Your task to perform on an android device: What's a good restaurant in Atlanta? Image 0: 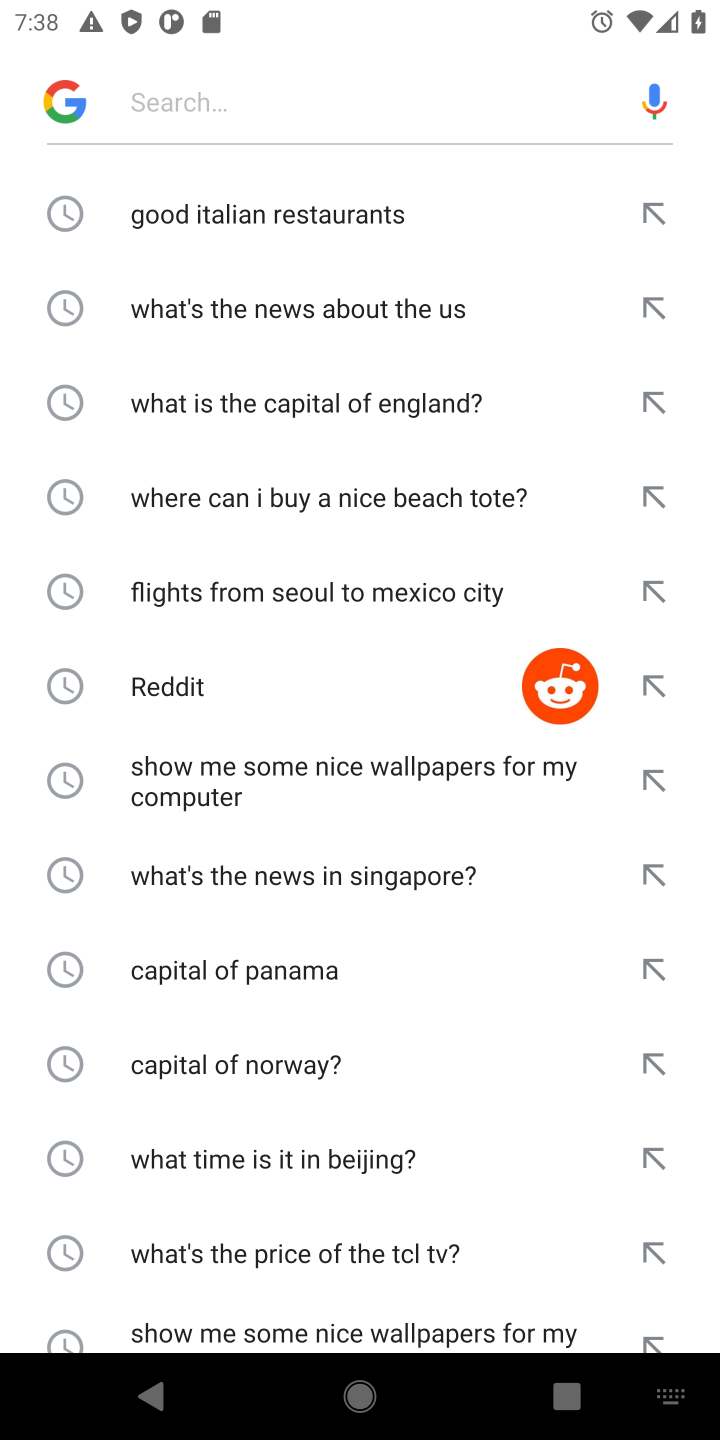
Step 0: press home button
Your task to perform on an android device: What's a good restaurant in Atlanta? Image 1: 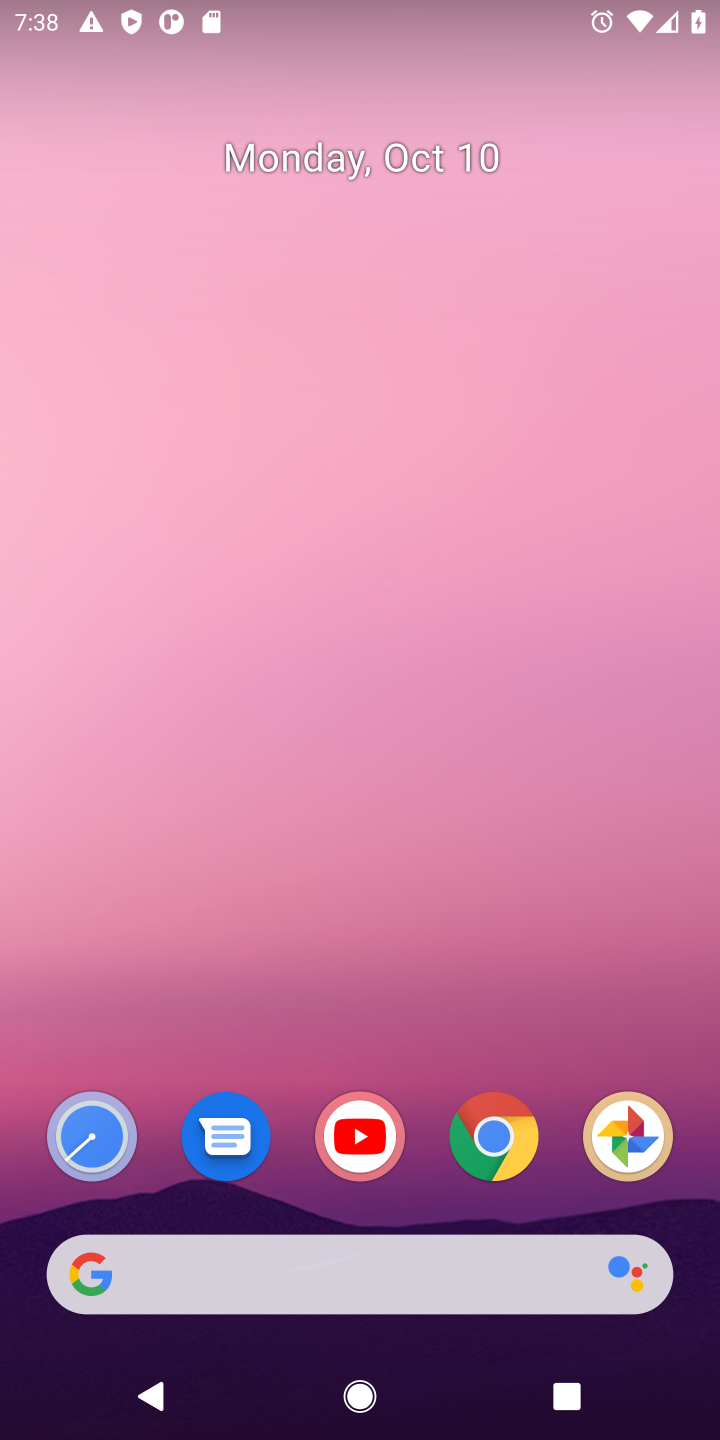
Step 1: drag from (417, 1200) to (426, 119)
Your task to perform on an android device: What's a good restaurant in Atlanta? Image 2: 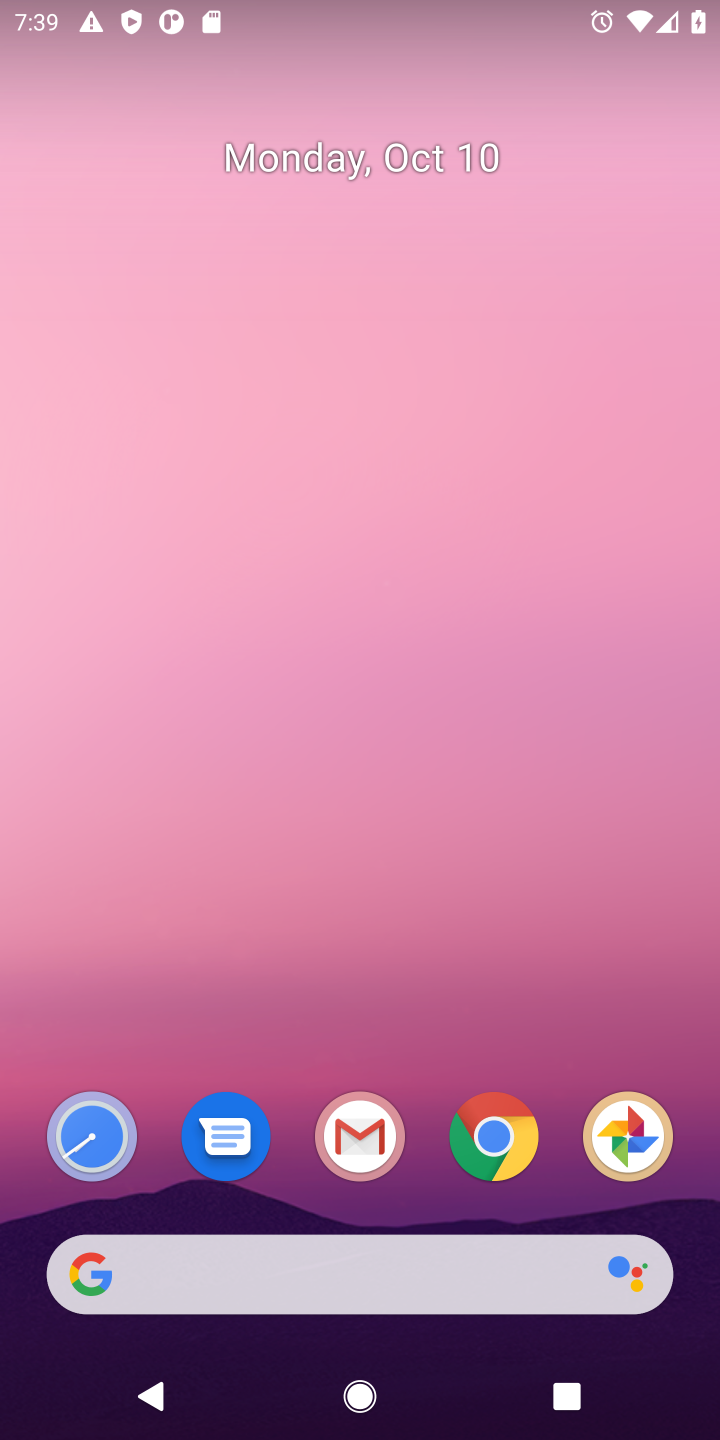
Step 2: drag from (407, 1221) to (360, 59)
Your task to perform on an android device: What's a good restaurant in Atlanta? Image 3: 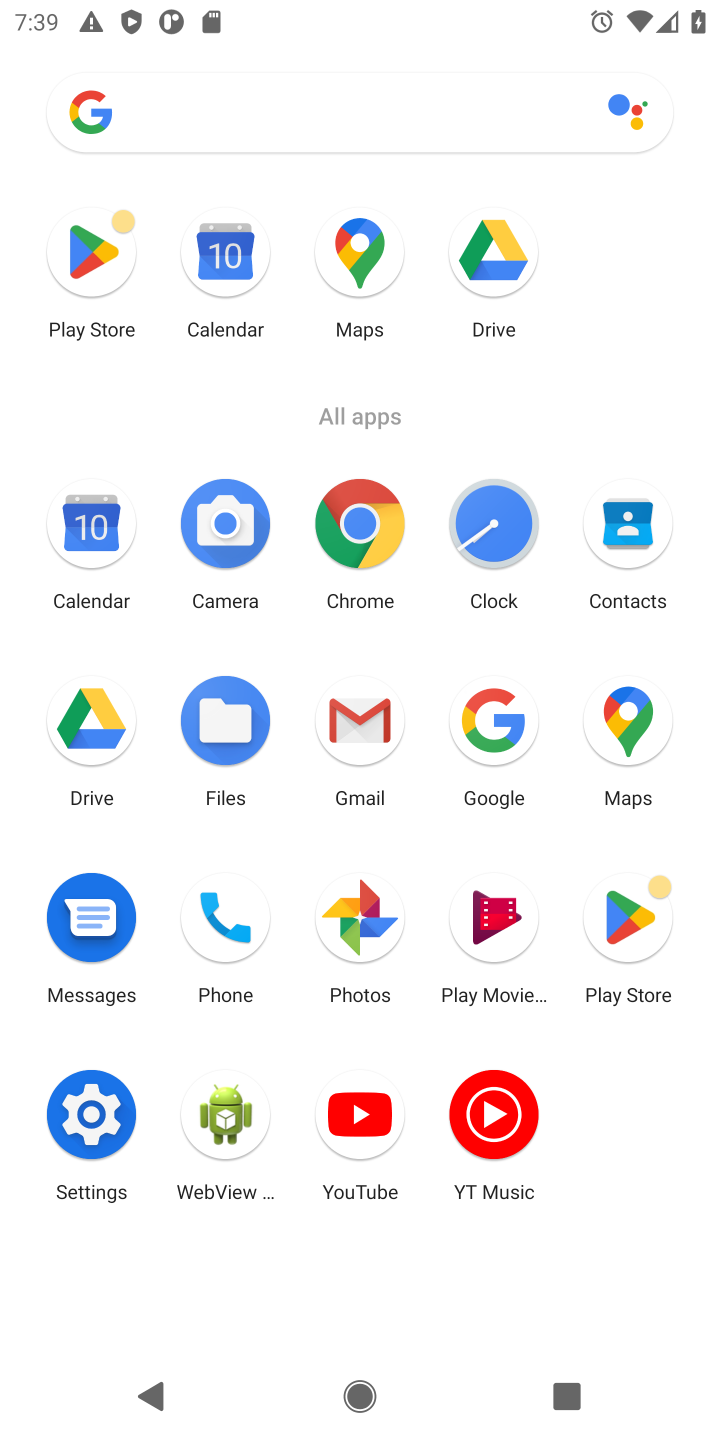
Step 3: click (360, 533)
Your task to perform on an android device: What's a good restaurant in Atlanta? Image 4: 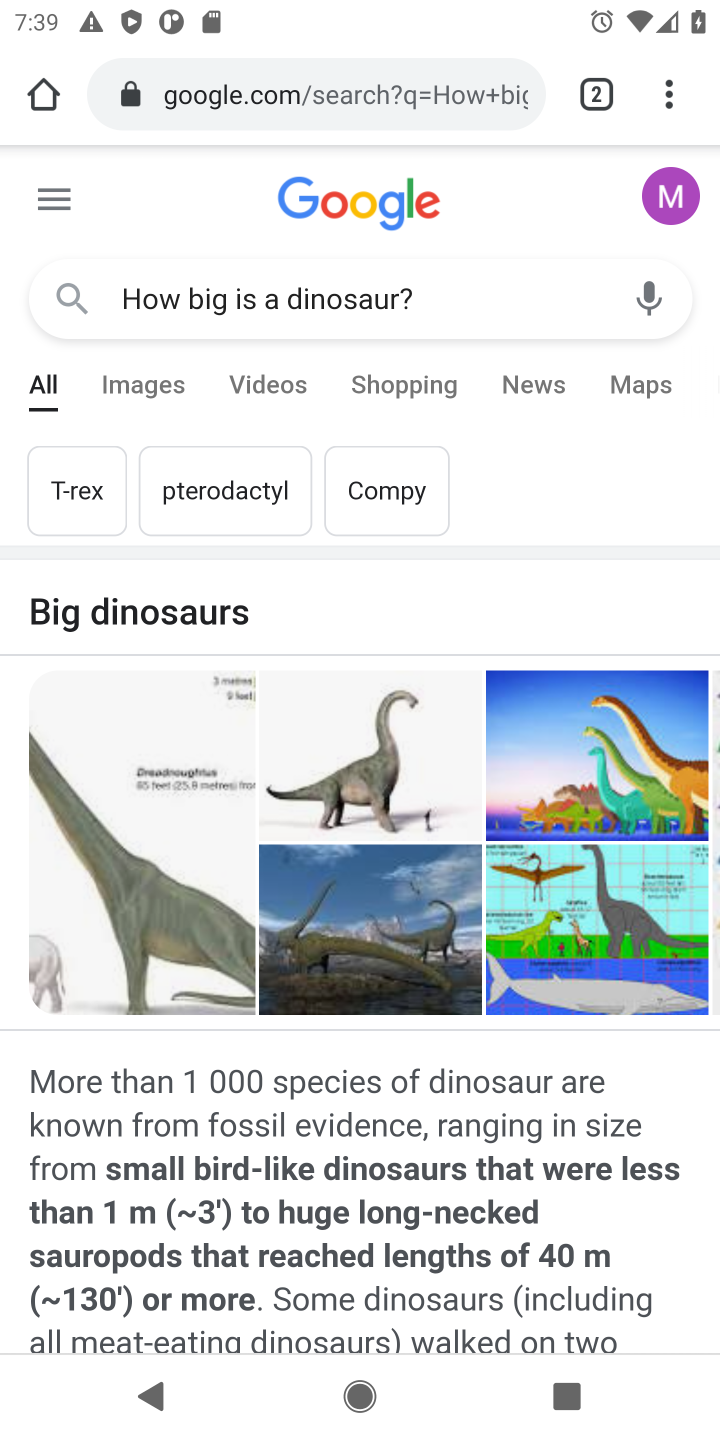
Step 4: click (473, 303)
Your task to perform on an android device: What's a good restaurant in Atlanta? Image 5: 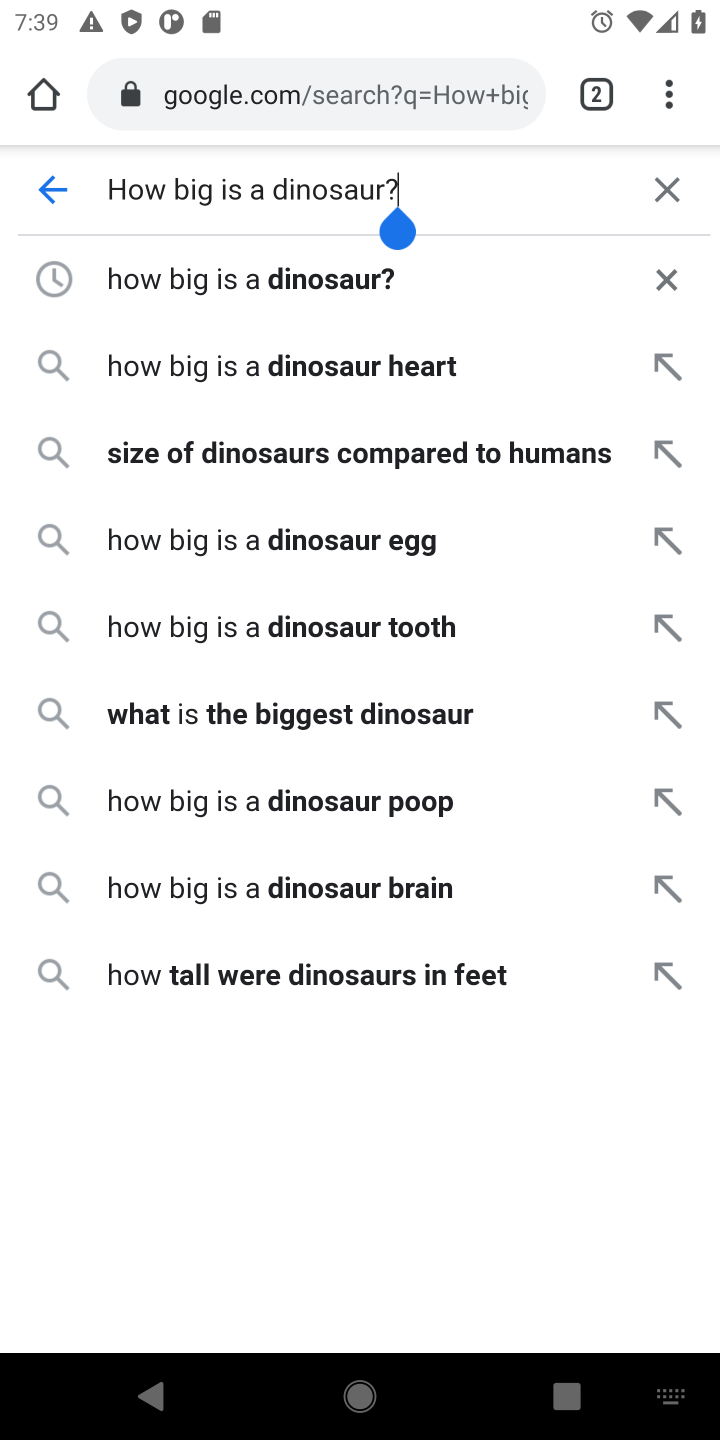
Step 5: click (673, 187)
Your task to perform on an android device: What's a good restaurant in Atlanta? Image 6: 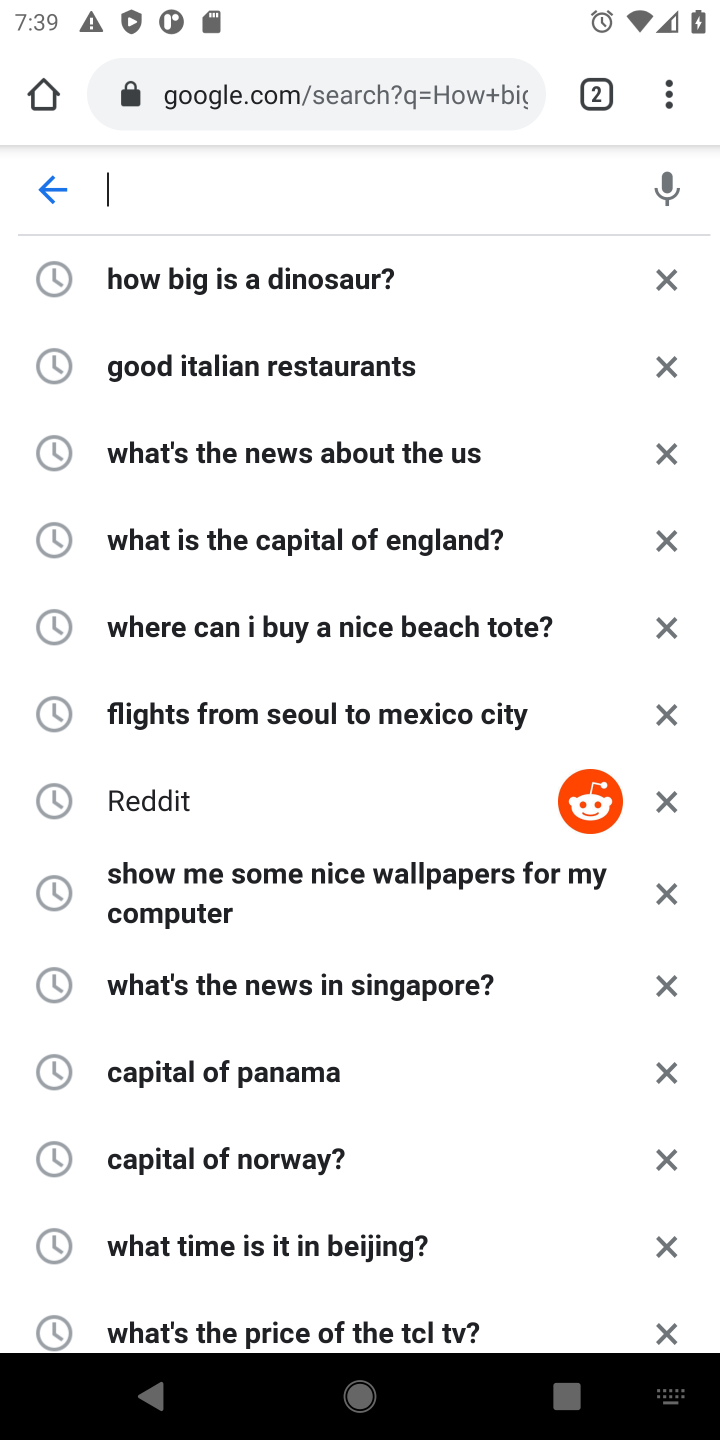
Step 6: type "What's a good restaurant in Atlanta?"
Your task to perform on an android device: What's a good restaurant in Atlanta? Image 7: 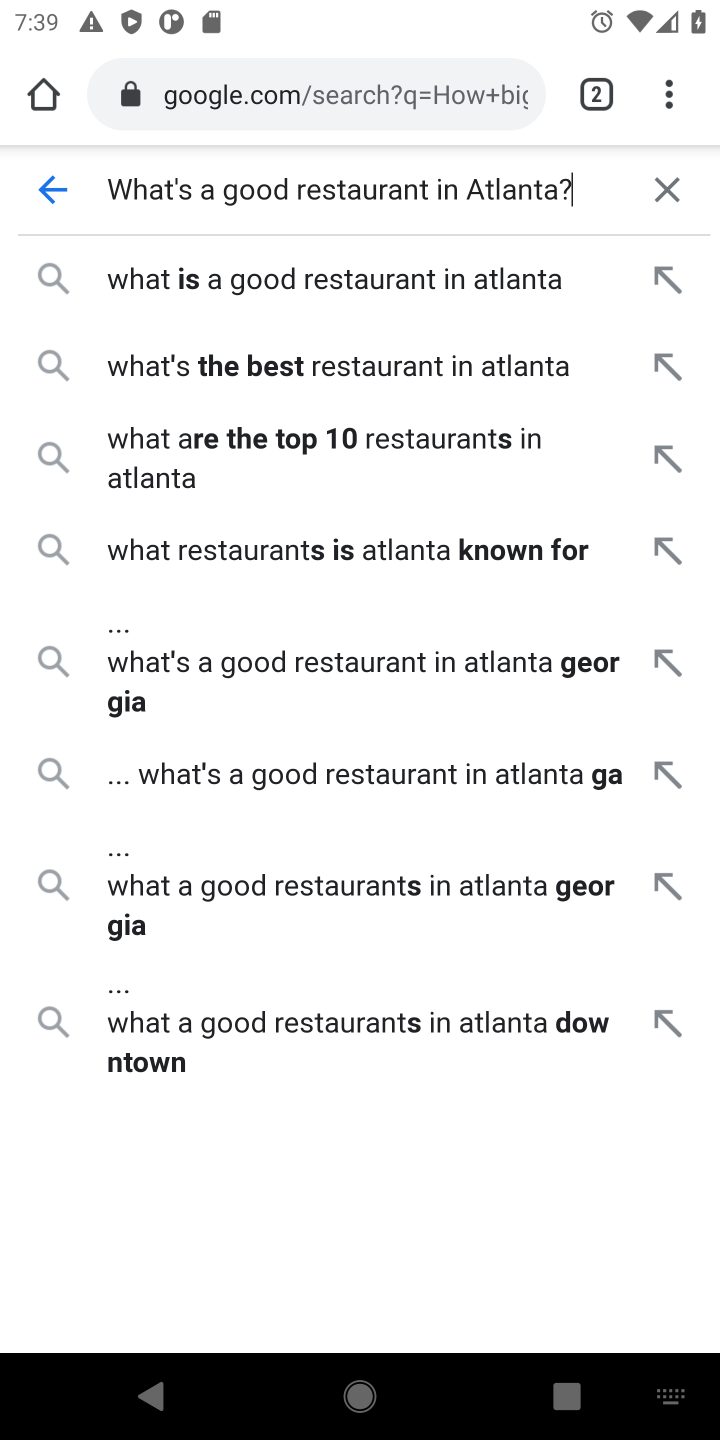
Step 7: type ""
Your task to perform on an android device: What's a good restaurant in Atlanta? Image 8: 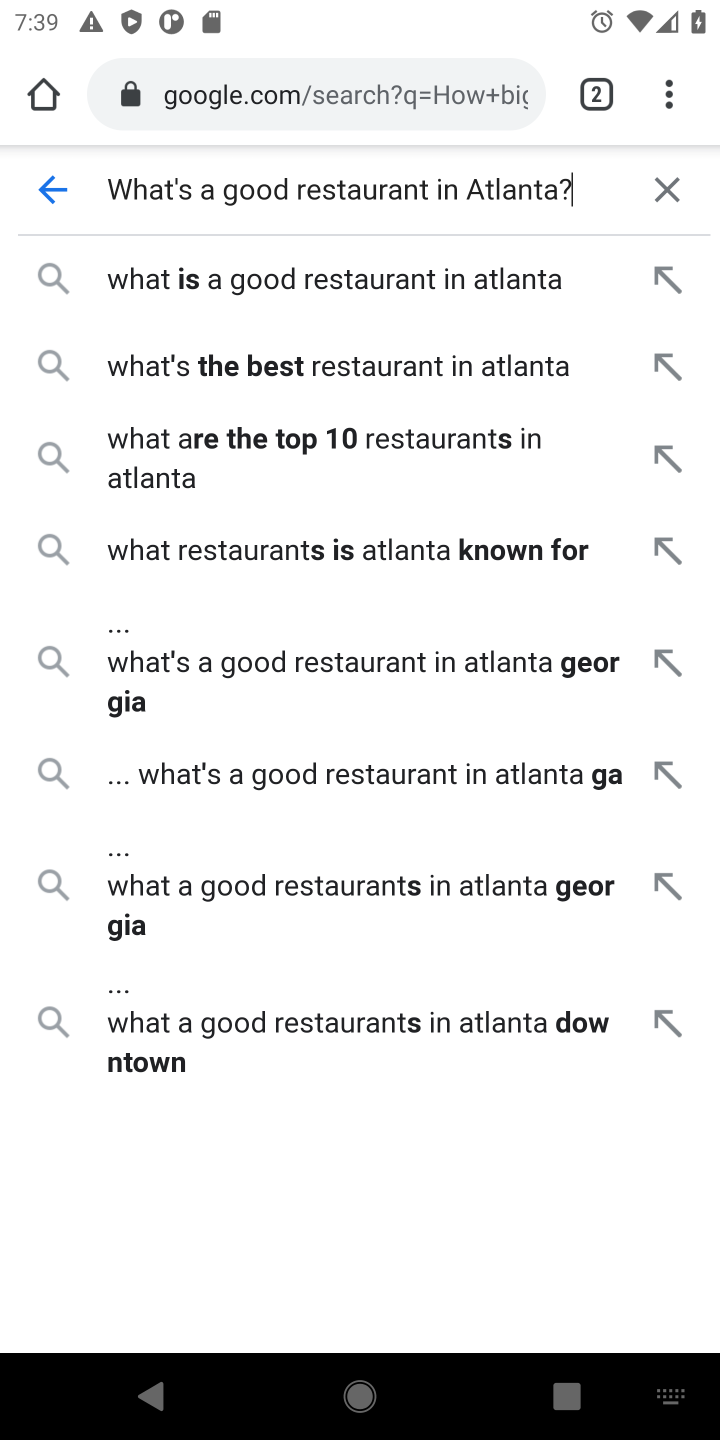
Step 8: click (332, 279)
Your task to perform on an android device: What's a good restaurant in Atlanta? Image 9: 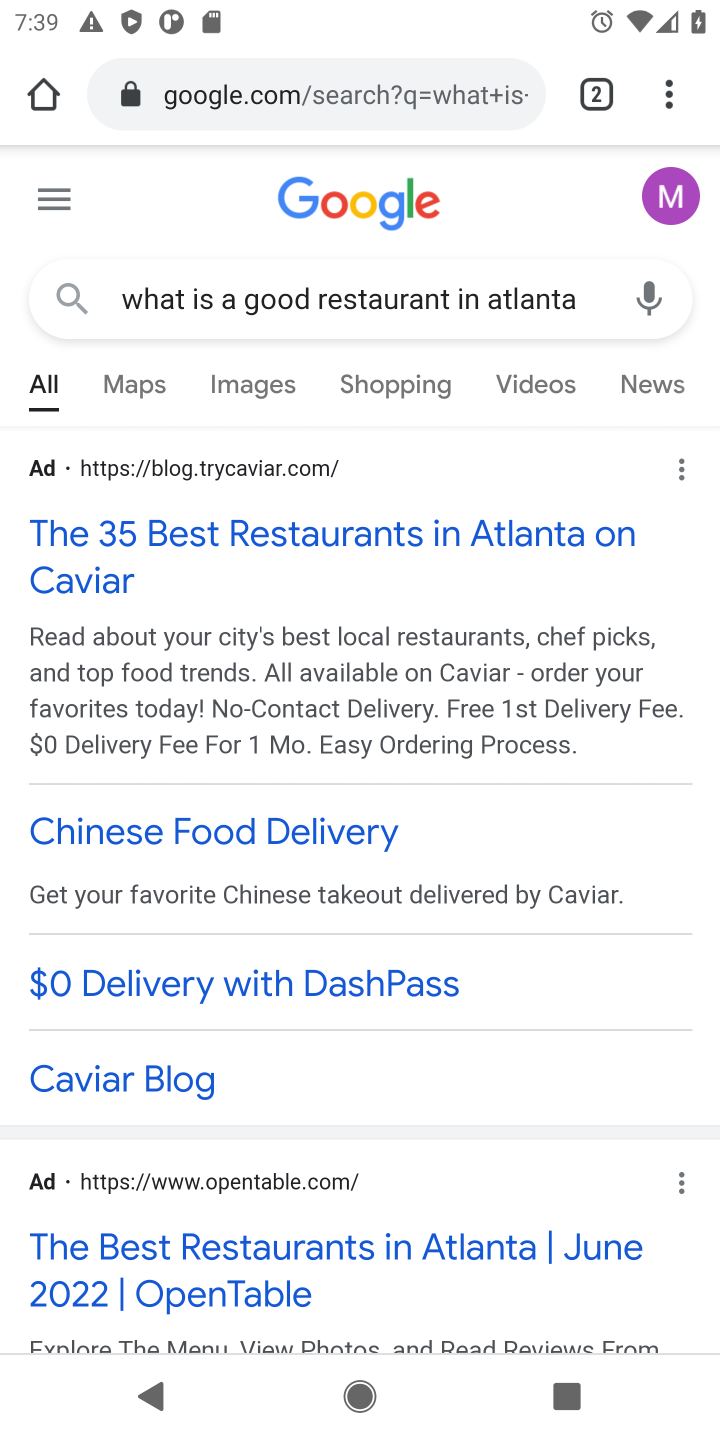
Step 9: task complete